Your task to perform on an android device: What's on my calendar tomorrow? Image 0: 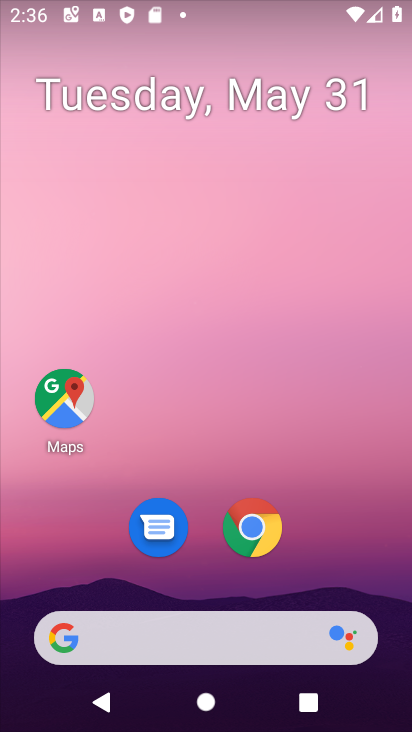
Step 0: drag from (355, 573) to (352, 76)
Your task to perform on an android device: What's on my calendar tomorrow? Image 1: 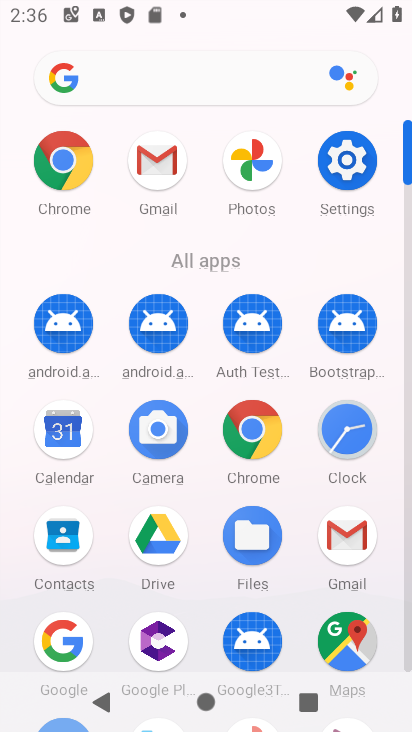
Step 1: click (62, 424)
Your task to perform on an android device: What's on my calendar tomorrow? Image 2: 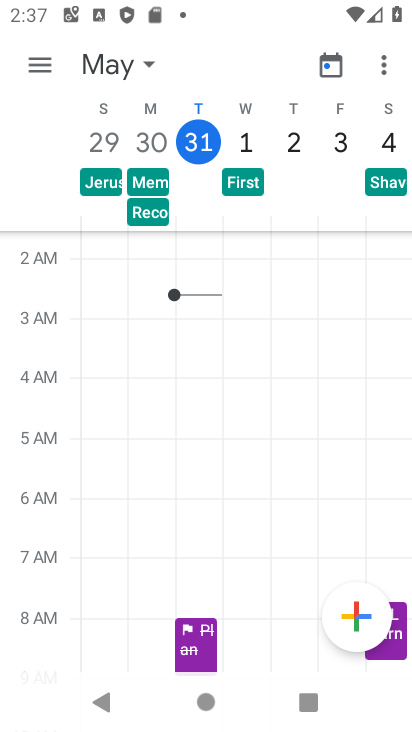
Step 2: click (32, 70)
Your task to perform on an android device: What's on my calendar tomorrow? Image 3: 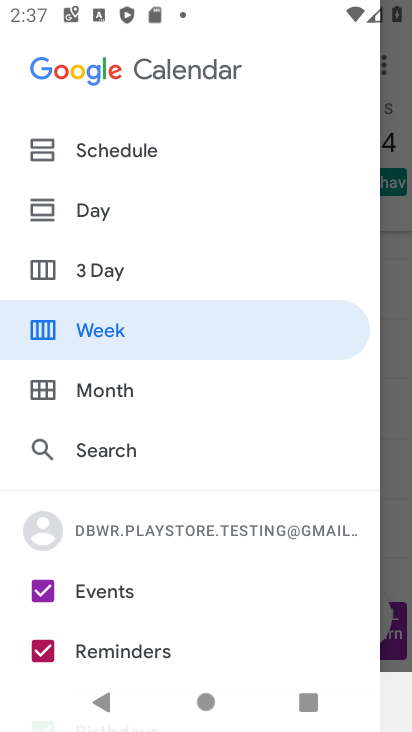
Step 3: click (107, 196)
Your task to perform on an android device: What's on my calendar tomorrow? Image 4: 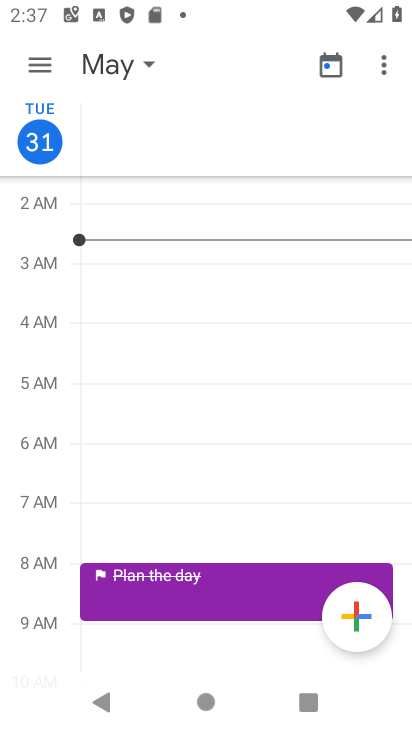
Step 4: task complete